Your task to perform on an android device: turn off picture-in-picture Image 0: 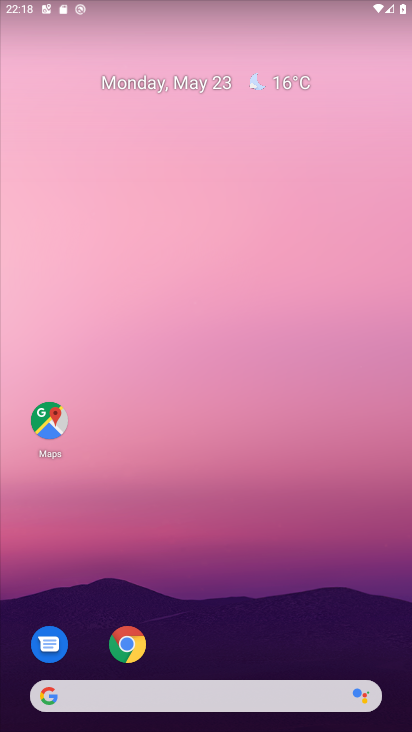
Step 0: click (128, 638)
Your task to perform on an android device: turn off picture-in-picture Image 1: 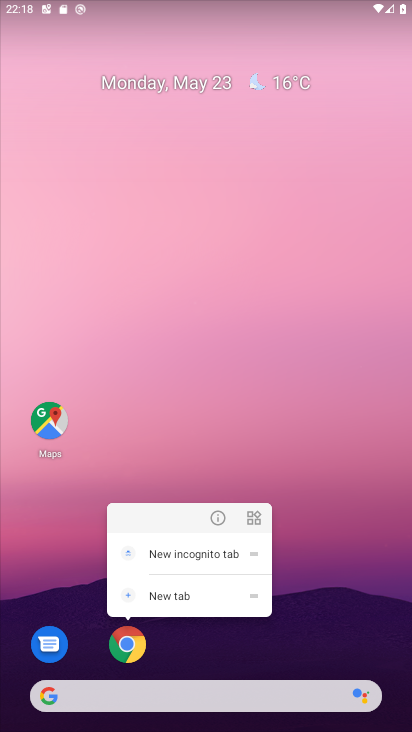
Step 1: click (216, 516)
Your task to perform on an android device: turn off picture-in-picture Image 2: 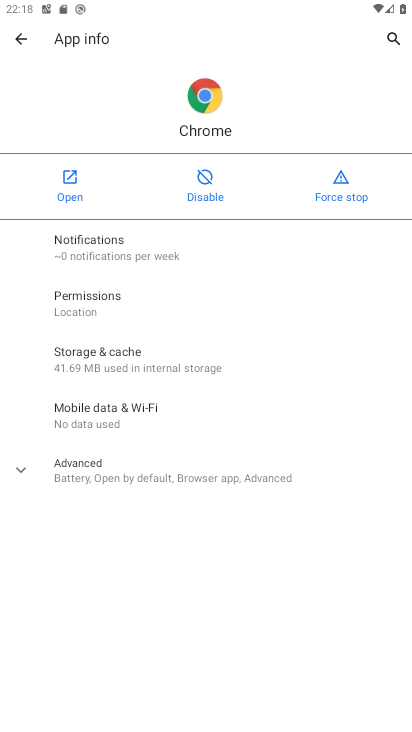
Step 2: click (22, 465)
Your task to perform on an android device: turn off picture-in-picture Image 3: 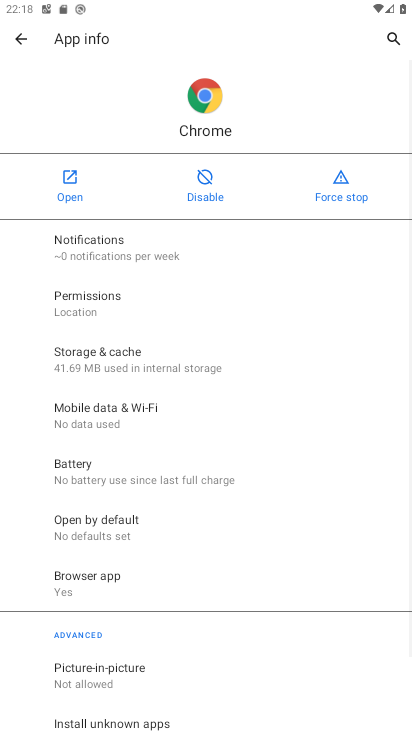
Step 3: click (126, 676)
Your task to perform on an android device: turn off picture-in-picture Image 4: 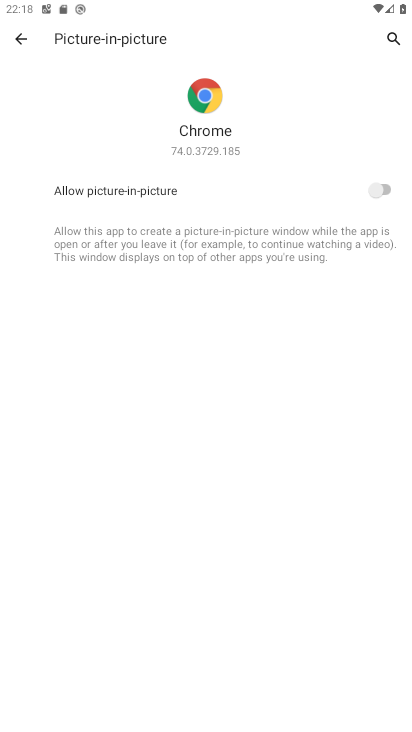
Step 4: task complete